Your task to perform on an android device: Go to eBay Image 0: 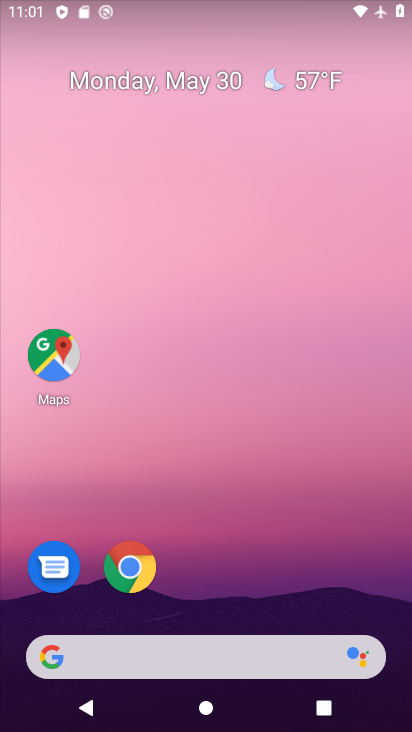
Step 0: click (223, 176)
Your task to perform on an android device: Go to eBay Image 1: 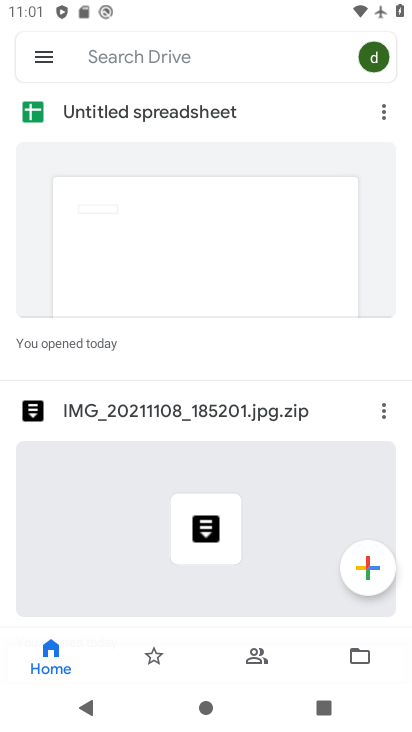
Step 1: press home button
Your task to perform on an android device: Go to eBay Image 2: 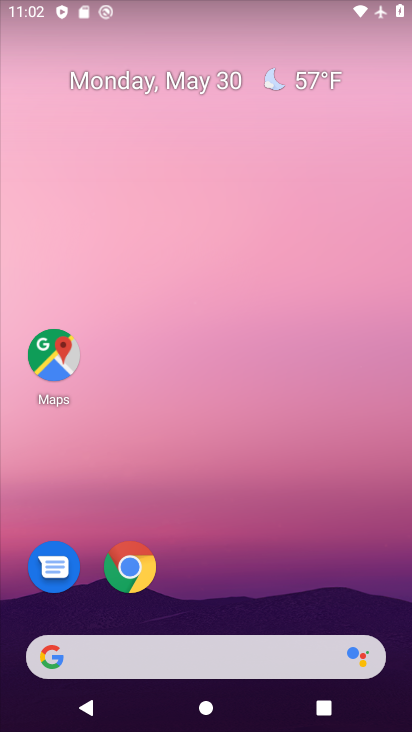
Step 2: click (130, 565)
Your task to perform on an android device: Go to eBay Image 3: 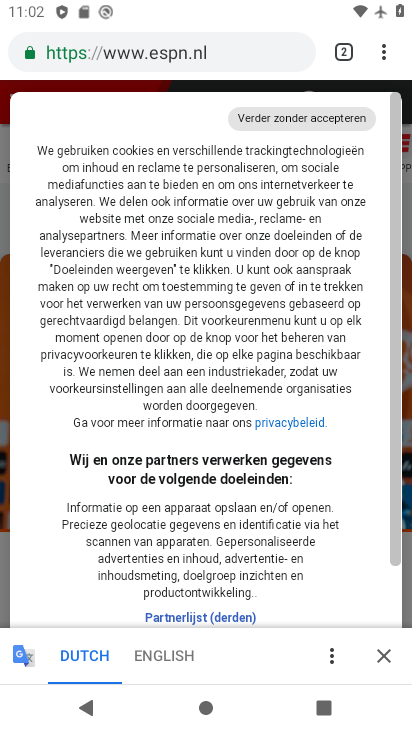
Step 3: click (388, 61)
Your task to perform on an android device: Go to eBay Image 4: 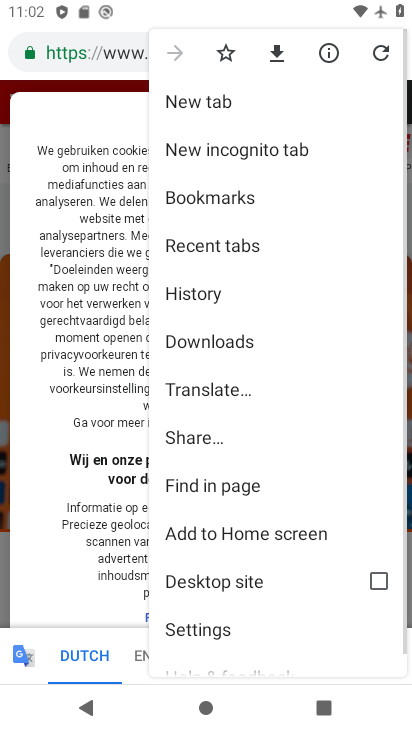
Step 4: click (76, 114)
Your task to perform on an android device: Go to eBay Image 5: 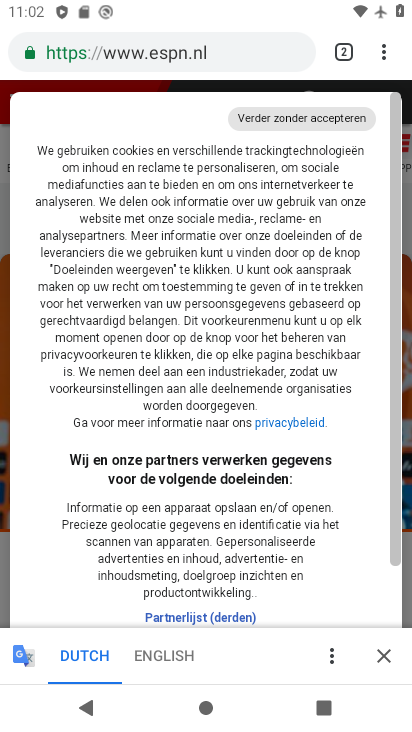
Step 5: click (351, 47)
Your task to perform on an android device: Go to eBay Image 6: 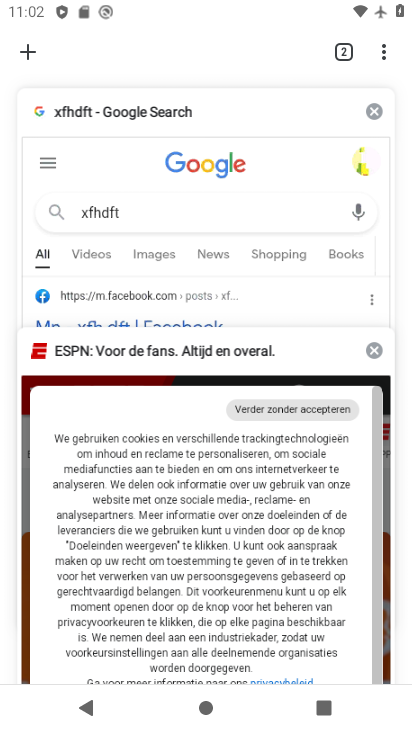
Step 6: click (34, 45)
Your task to perform on an android device: Go to eBay Image 7: 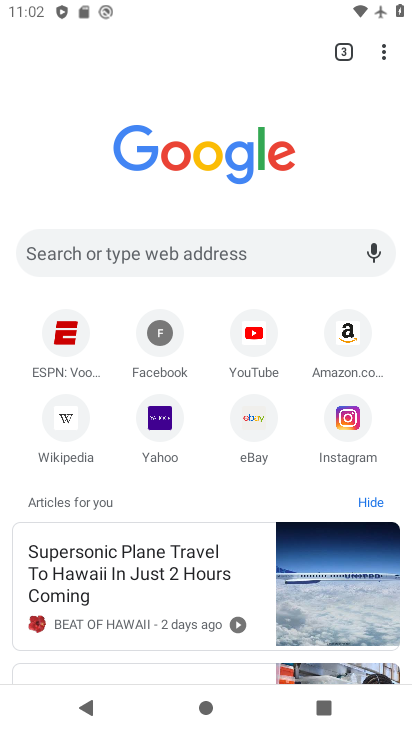
Step 7: click (241, 427)
Your task to perform on an android device: Go to eBay Image 8: 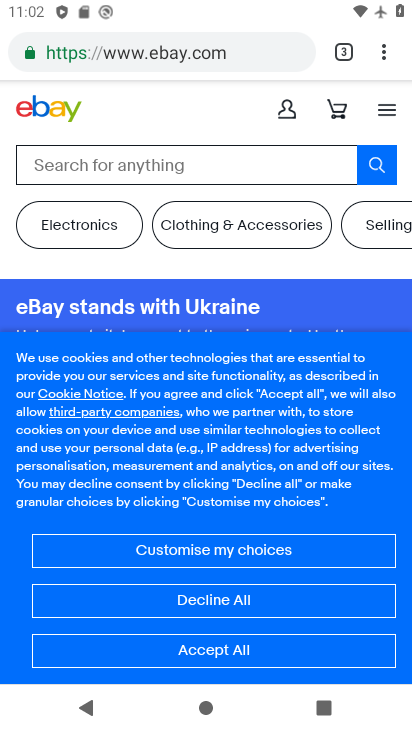
Step 8: task complete